Your task to perform on an android device: Open the Play Movies app and select the watchlist tab. Image 0: 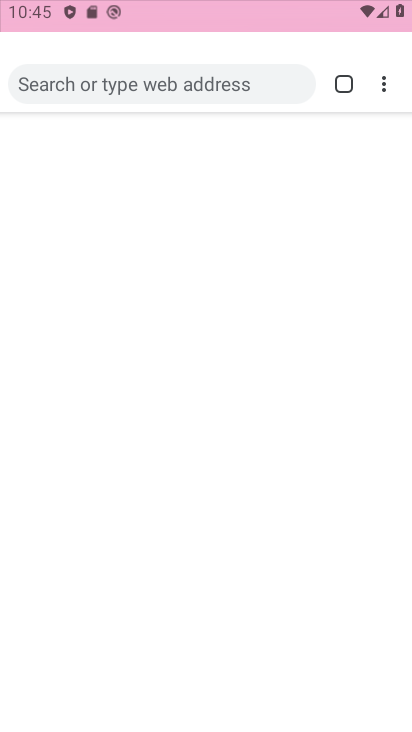
Step 0: drag from (170, 294) to (224, 91)
Your task to perform on an android device: Open the Play Movies app and select the watchlist tab. Image 1: 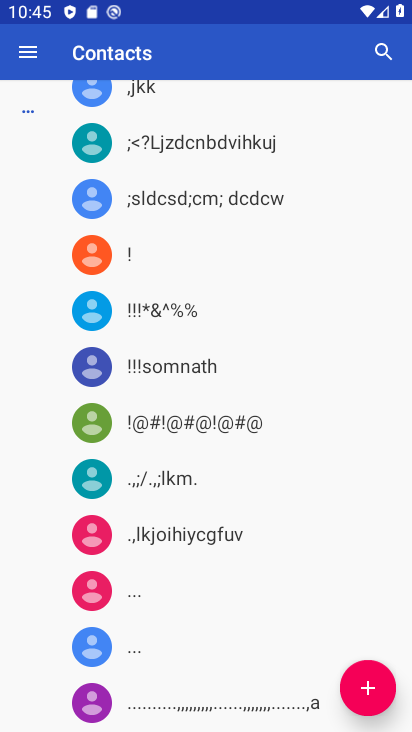
Step 1: press home button
Your task to perform on an android device: Open the Play Movies app and select the watchlist tab. Image 2: 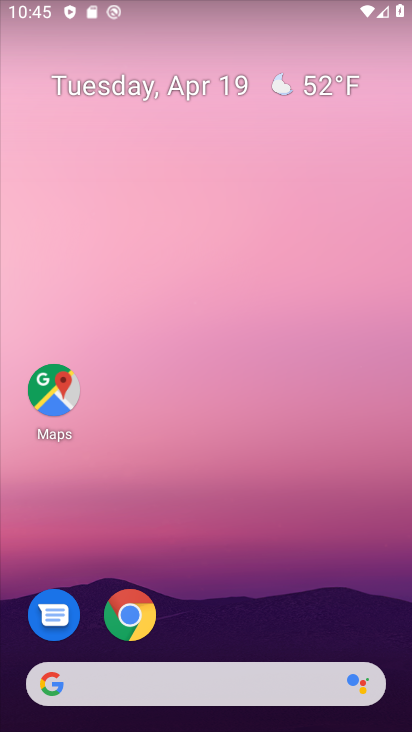
Step 2: drag from (222, 667) to (326, 157)
Your task to perform on an android device: Open the Play Movies app and select the watchlist tab. Image 3: 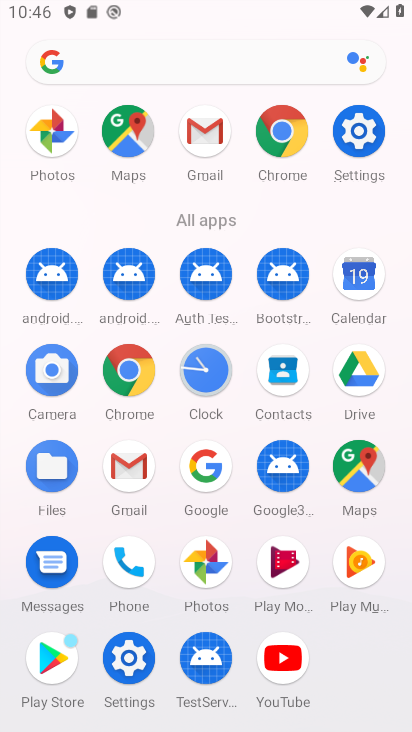
Step 3: click (282, 567)
Your task to perform on an android device: Open the Play Movies app and select the watchlist tab. Image 4: 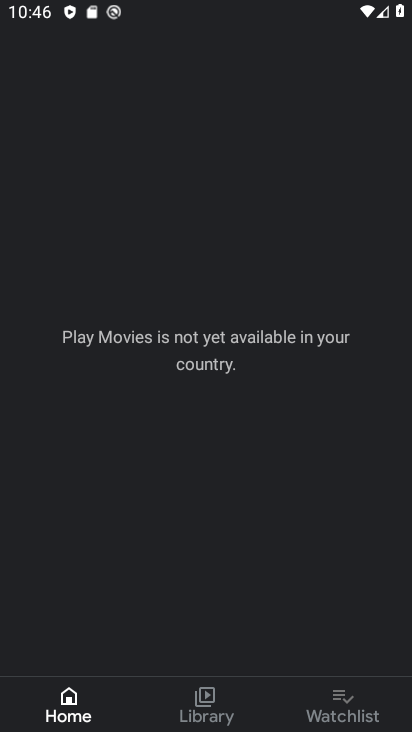
Step 4: click (342, 696)
Your task to perform on an android device: Open the Play Movies app and select the watchlist tab. Image 5: 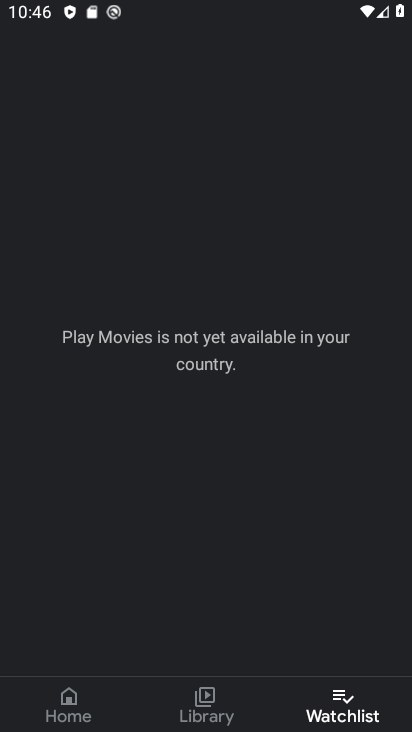
Step 5: task complete